Your task to perform on an android device: Go to Yahoo.com Image 0: 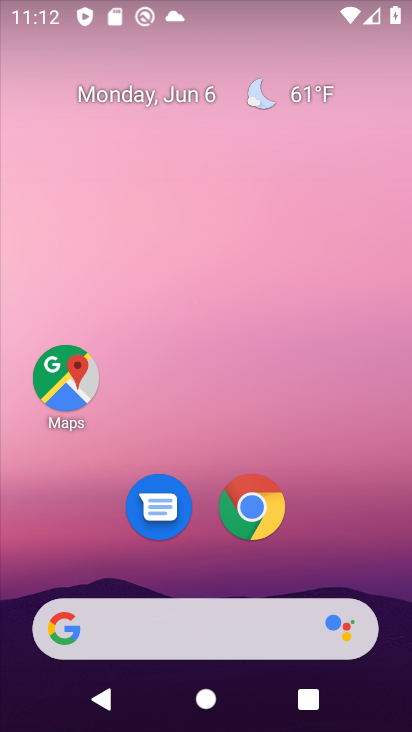
Step 0: click (260, 509)
Your task to perform on an android device: Go to Yahoo.com Image 1: 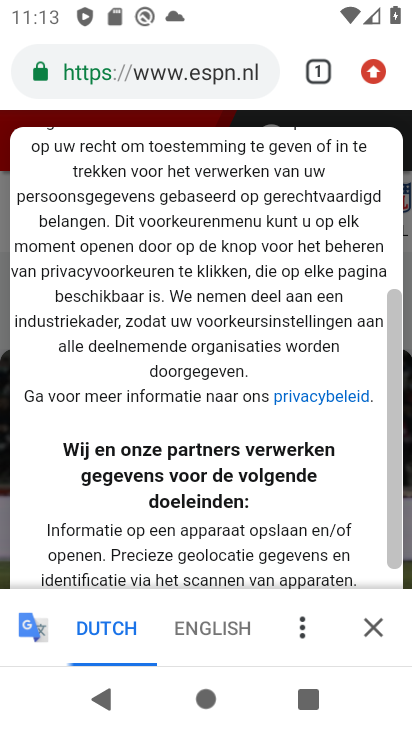
Step 1: click (254, 71)
Your task to perform on an android device: Go to Yahoo.com Image 2: 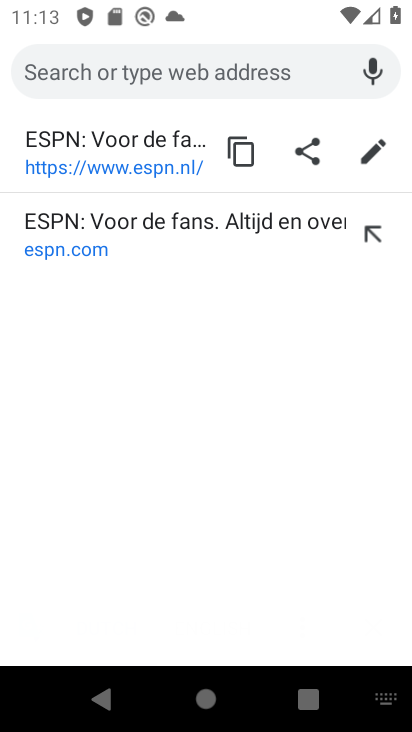
Step 2: type "yahoo.com"
Your task to perform on an android device: Go to Yahoo.com Image 3: 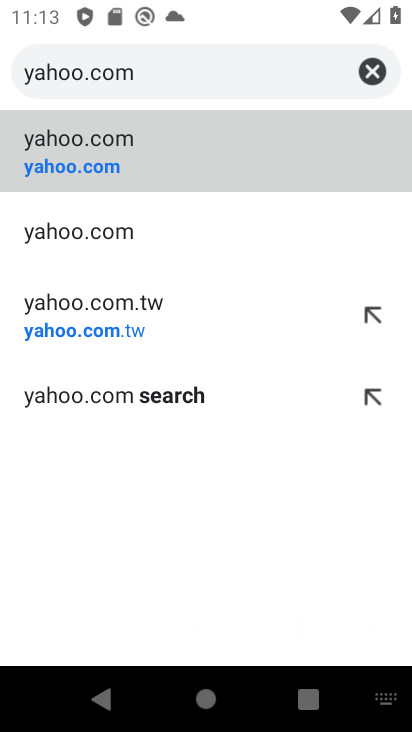
Step 3: click (237, 154)
Your task to perform on an android device: Go to Yahoo.com Image 4: 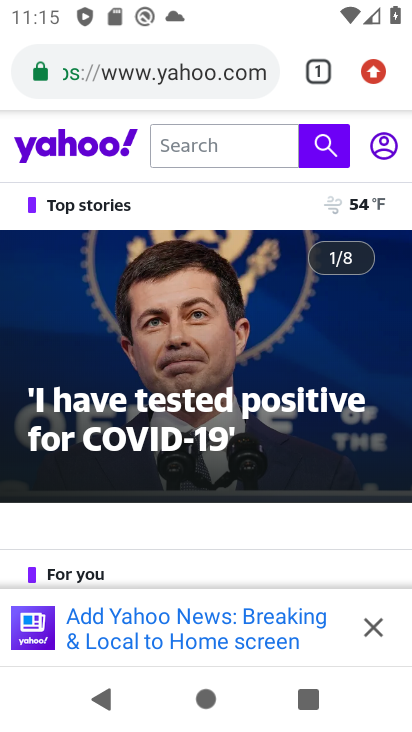
Step 4: task complete